Your task to perform on an android device: turn off picture-in-picture Image 0: 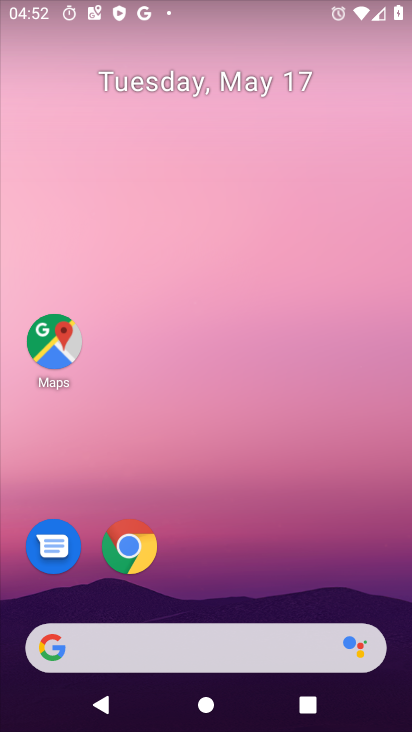
Step 0: click (131, 537)
Your task to perform on an android device: turn off picture-in-picture Image 1: 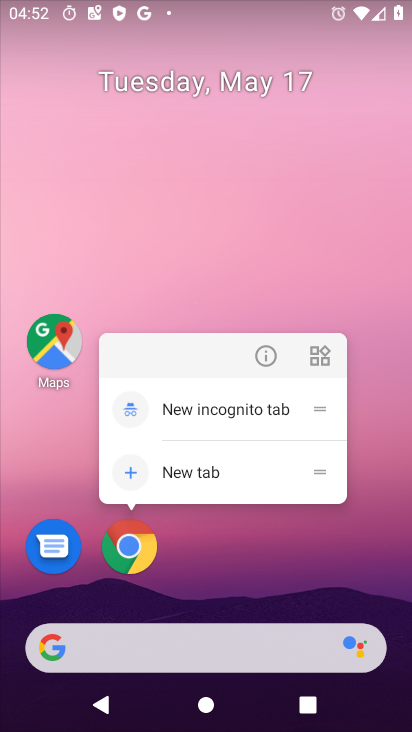
Step 1: click (258, 355)
Your task to perform on an android device: turn off picture-in-picture Image 2: 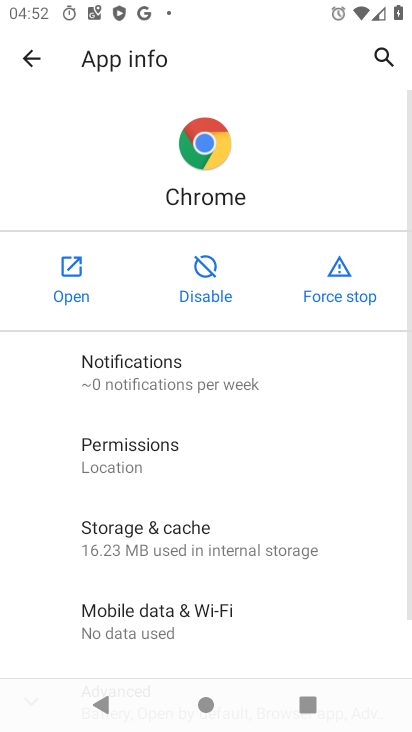
Step 2: drag from (322, 615) to (308, 417)
Your task to perform on an android device: turn off picture-in-picture Image 3: 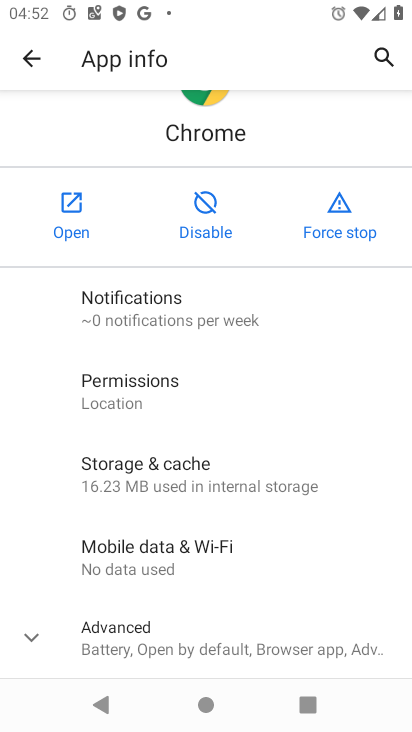
Step 3: drag from (299, 579) to (281, 383)
Your task to perform on an android device: turn off picture-in-picture Image 4: 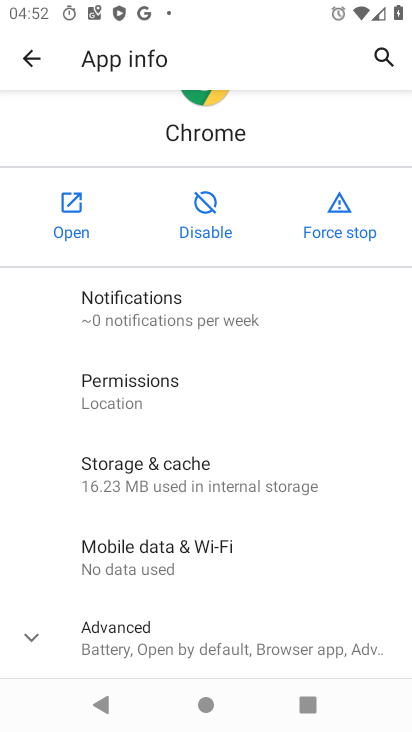
Step 4: drag from (286, 600) to (280, 378)
Your task to perform on an android device: turn off picture-in-picture Image 5: 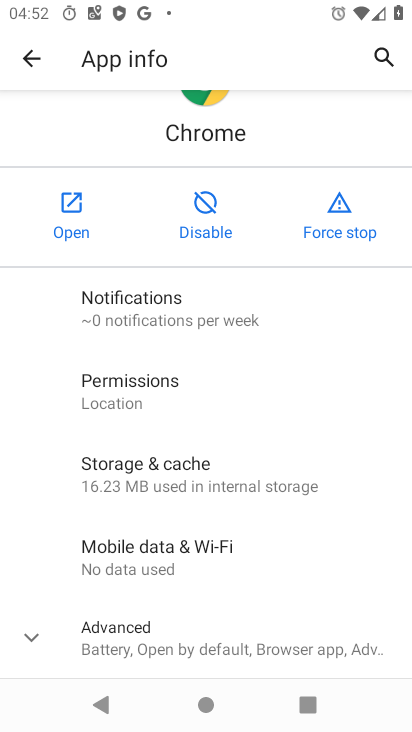
Step 5: drag from (316, 611) to (293, 366)
Your task to perform on an android device: turn off picture-in-picture Image 6: 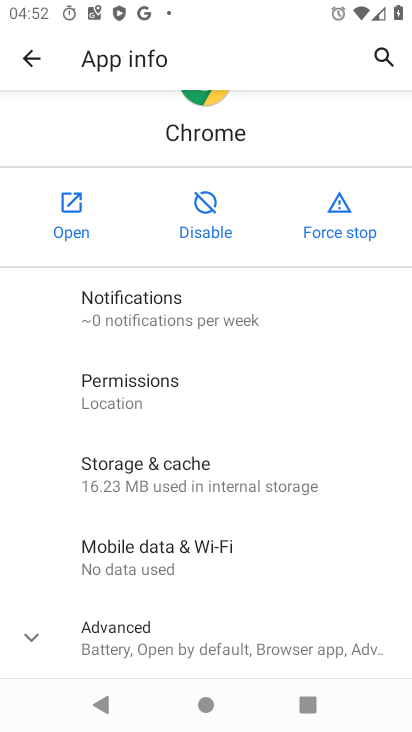
Step 6: click (33, 634)
Your task to perform on an android device: turn off picture-in-picture Image 7: 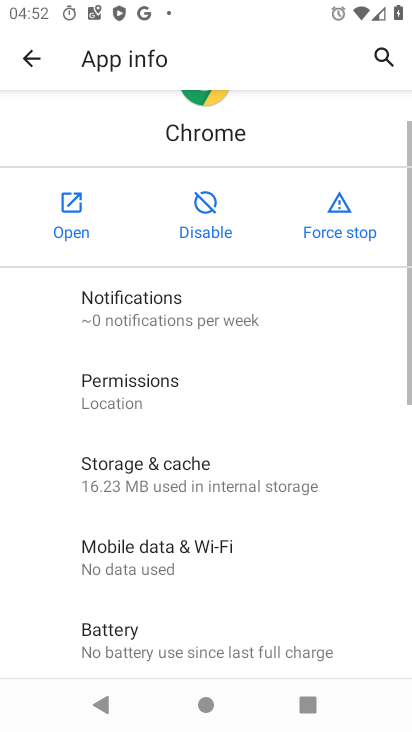
Step 7: drag from (296, 610) to (284, 378)
Your task to perform on an android device: turn off picture-in-picture Image 8: 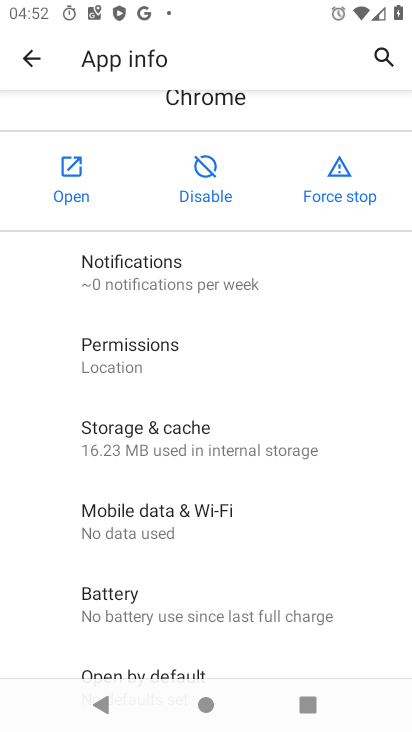
Step 8: drag from (254, 566) to (253, 453)
Your task to perform on an android device: turn off picture-in-picture Image 9: 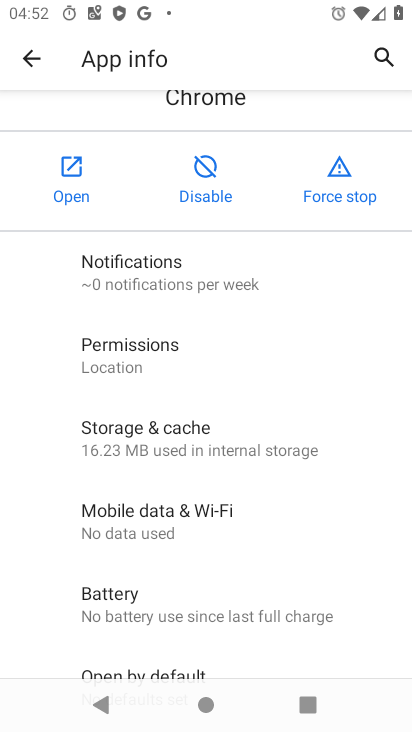
Step 9: drag from (292, 630) to (301, 496)
Your task to perform on an android device: turn off picture-in-picture Image 10: 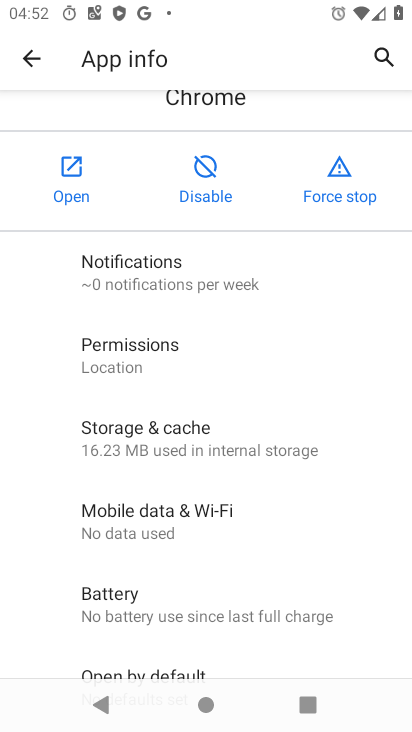
Step 10: drag from (326, 638) to (325, 369)
Your task to perform on an android device: turn off picture-in-picture Image 11: 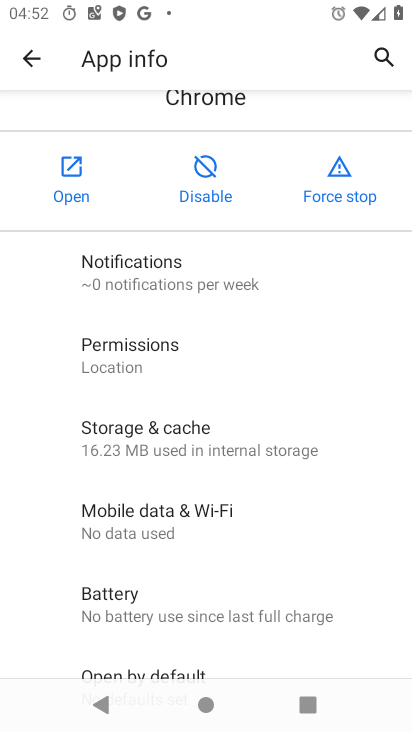
Step 11: drag from (286, 647) to (292, 435)
Your task to perform on an android device: turn off picture-in-picture Image 12: 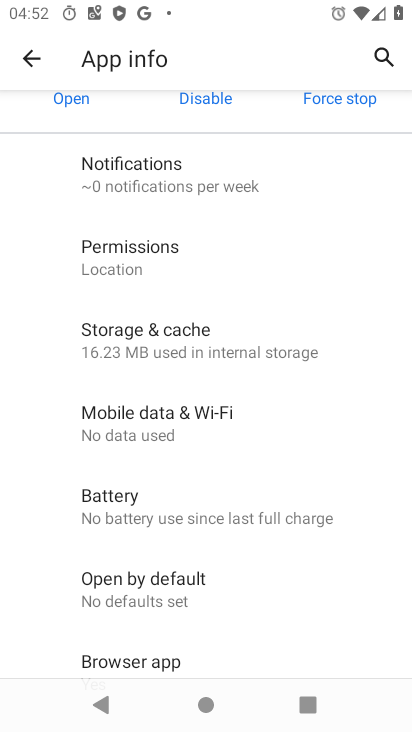
Step 12: drag from (269, 646) to (259, 406)
Your task to perform on an android device: turn off picture-in-picture Image 13: 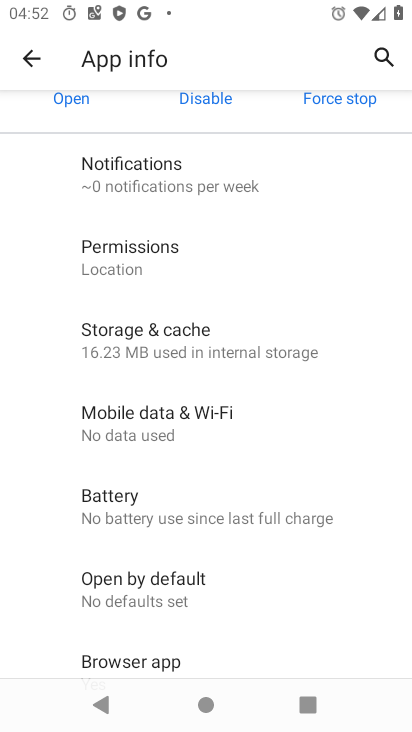
Step 13: drag from (268, 643) to (321, 305)
Your task to perform on an android device: turn off picture-in-picture Image 14: 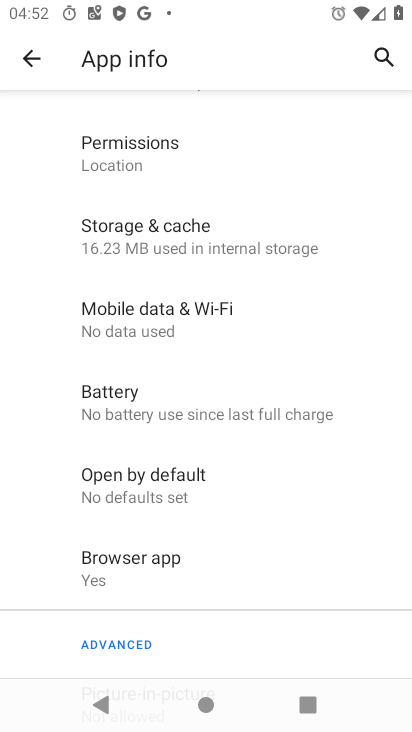
Step 14: drag from (242, 635) to (248, 382)
Your task to perform on an android device: turn off picture-in-picture Image 15: 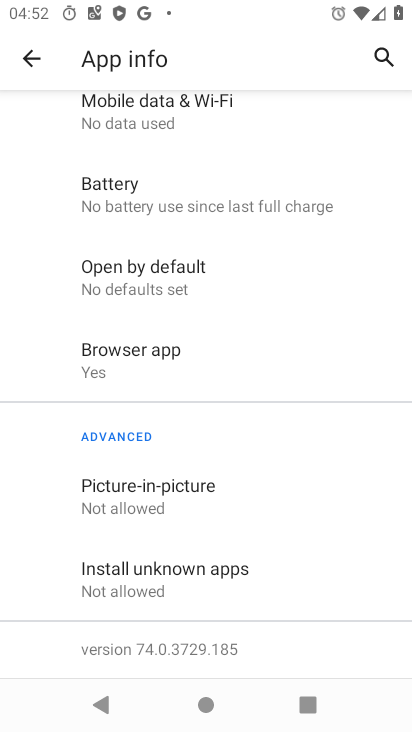
Step 15: click (109, 501)
Your task to perform on an android device: turn off picture-in-picture Image 16: 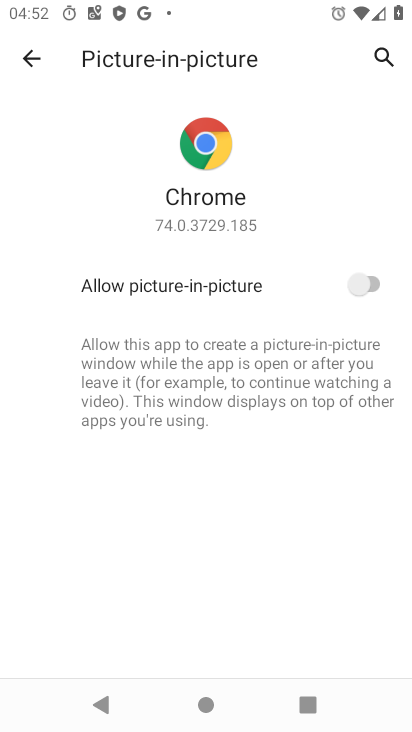
Step 16: task complete